Your task to perform on an android device: Open Google Maps and go to "Timeline" Image 0: 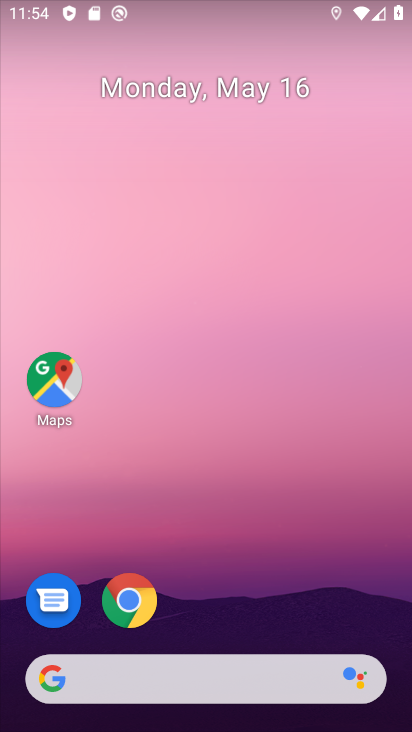
Step 0: drag from (225, 613) to (235, 1)
Your task to perform on an android device: Open Google Maps and go to "Timeline" Image 1: 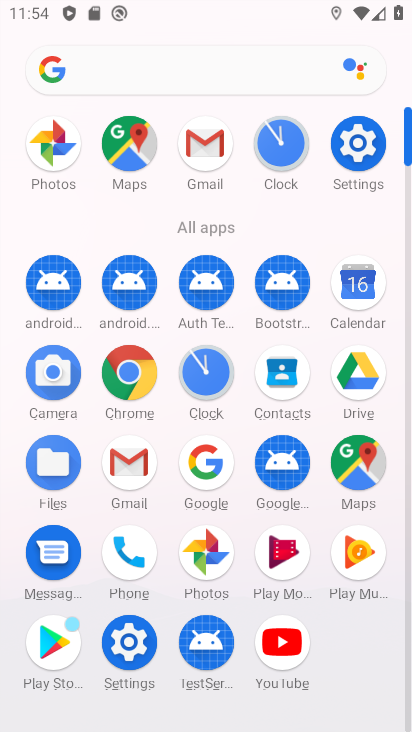
Step 1: click (136, 155)
Your task to perform on an android device: Open Google Maps and go to "Timeline" Image 2: 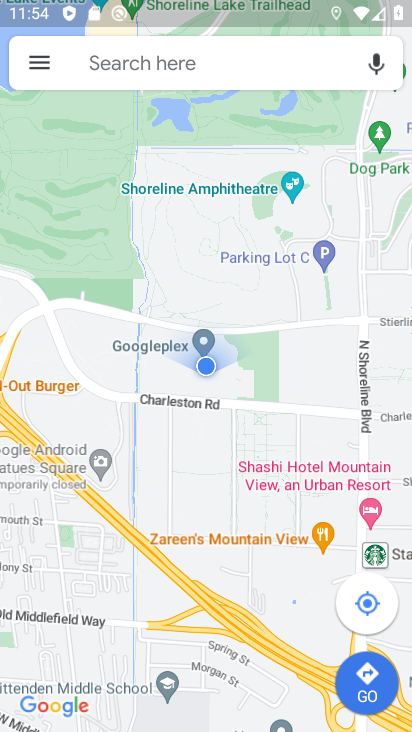
Step 2: click (39, 63)
Your task to perform on an android device: Open Google Maps and go to "Timeline" Image 3: 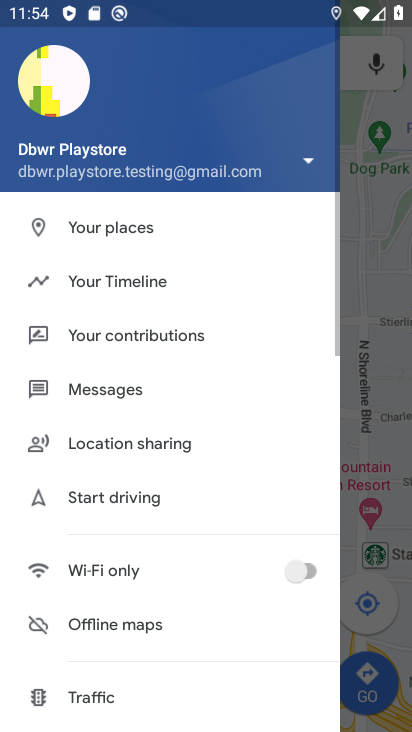
Step 3: click (100, 288)
Your task to perform on an android device: Open Google Maps and go to "Timeline" Image 4: 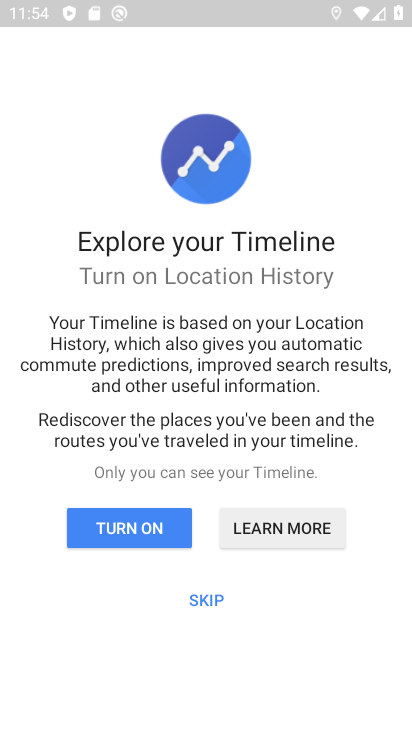
Step 4: click (202, 600)
Your task to perform on an android device: Open Google Maps and go to "Timeline" Image 5: 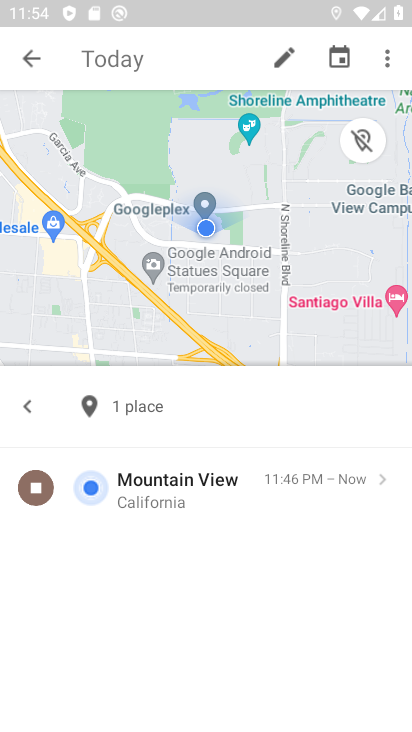
Step 5: task complete